Your task to perform on an android device: What is the recent news? Image 0: 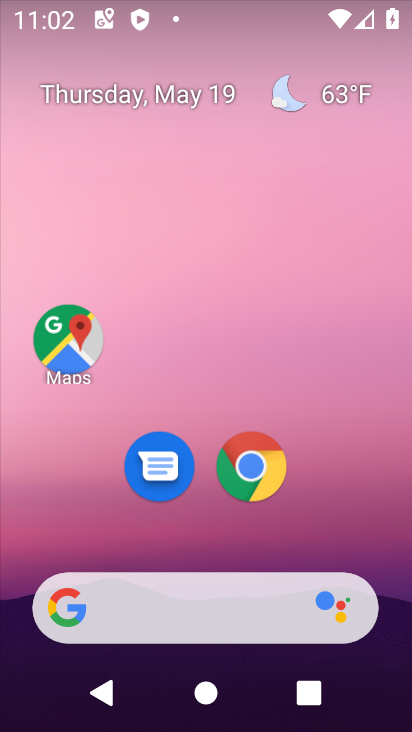
Step 0: drag from (401, 637) to (285, 49)
Your task to perform on an android device: What is the recent news? Image 1: 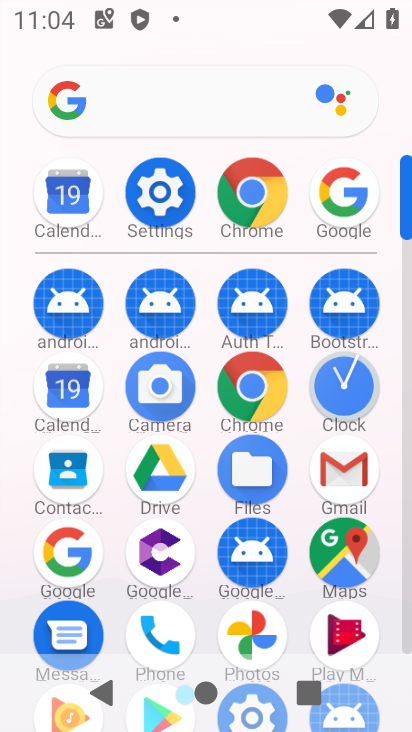
Step 1: click (252, 405)
Your task to perform on an android device: What is the recent news? Image 2: 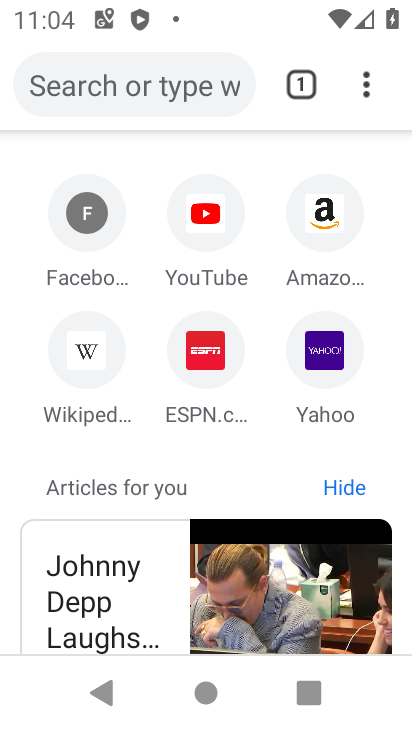
Step 2: click (120, 600)
Your task to perform on an android device: What is the recent news? Image 3: 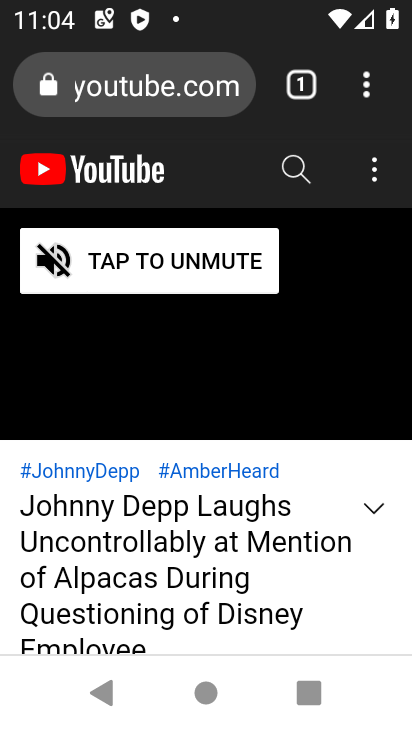
Step 3: click (214, 302)
Your task to perform on an android device: What is the recent news? Image 4: 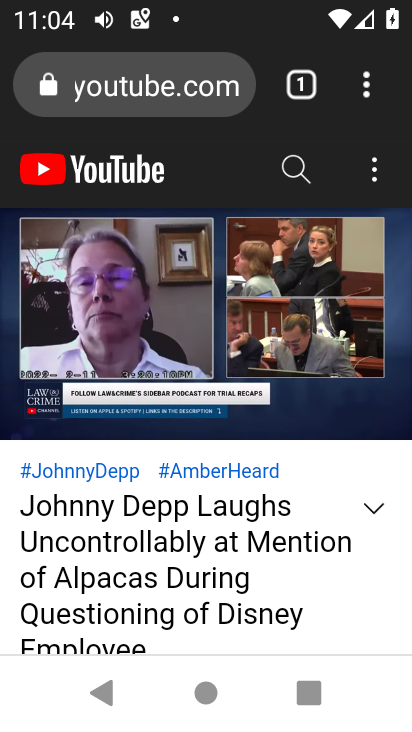
Step 4: click (190, 314)
Your task to perform on an android device: What is the recent news? Image 5: 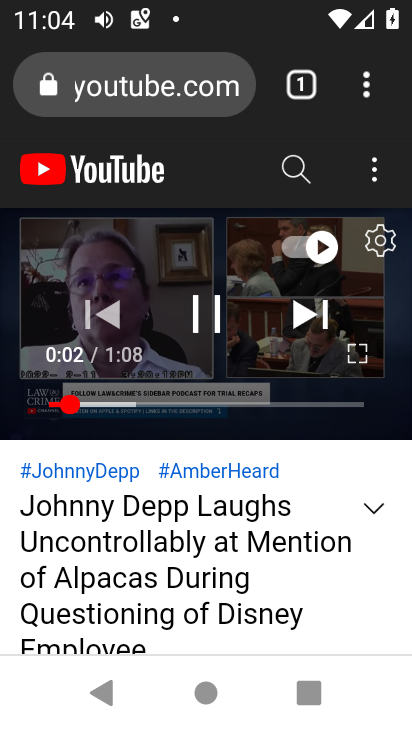
Step 5: click (187, 311)
Your task to perform on an android device: What is the recent news? Image 6: 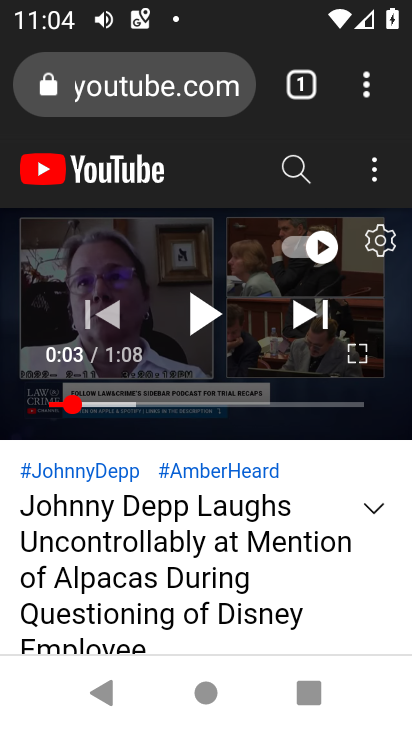
Step 6: task complete